Your task to perform on an android device: Go to eBay Image 0: 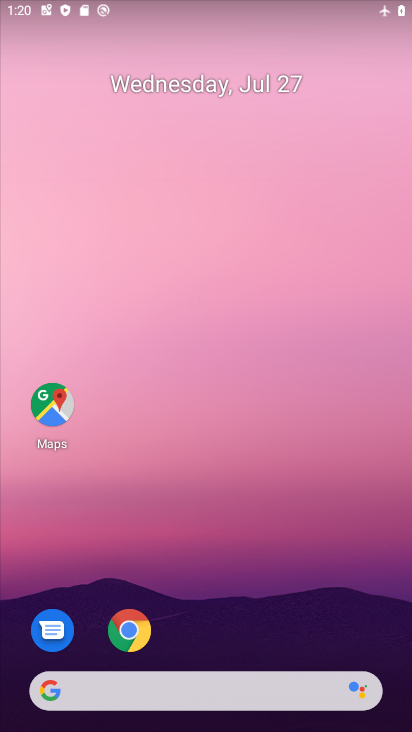
Step 0: drag from (397, 711) to (375, 255)
Your task to perform on an android device: Go to eBay Image 1: 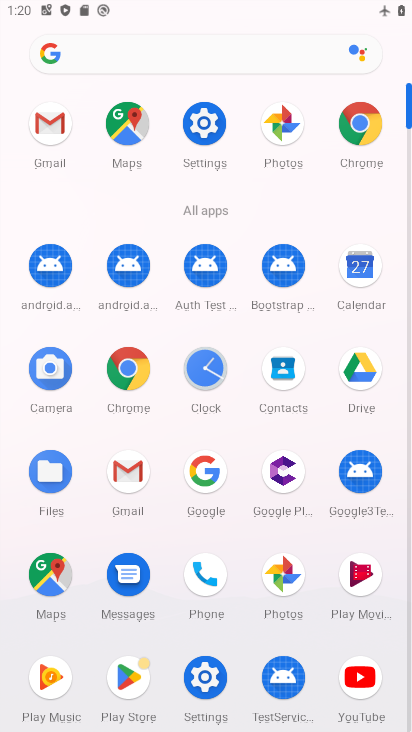
Step 1: click (212, 119)
Your task to perform on an android device: Go to eBay Image 2: 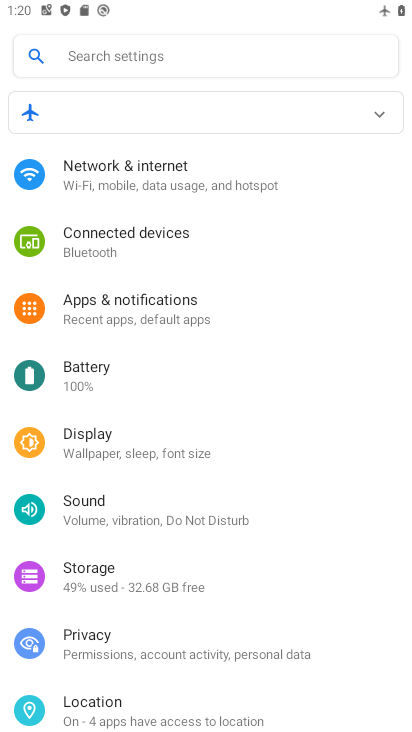
Step 2: click (114, 58)
Your task to perform on an android device: Go to eBay Image 3: 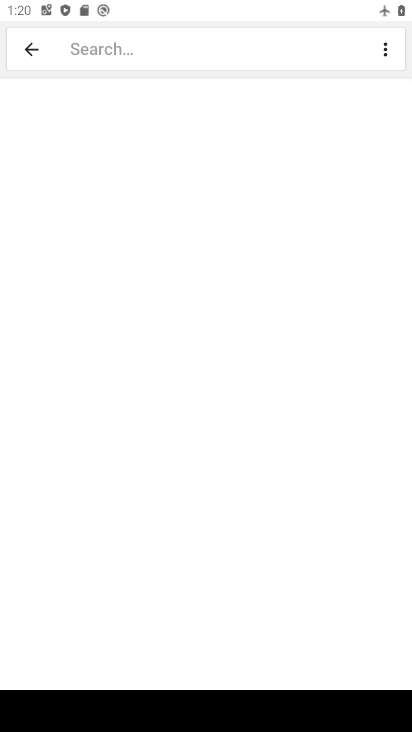
Step 3: type "eBay"
Your task to perform on an android device: Go to eBay Image 4: 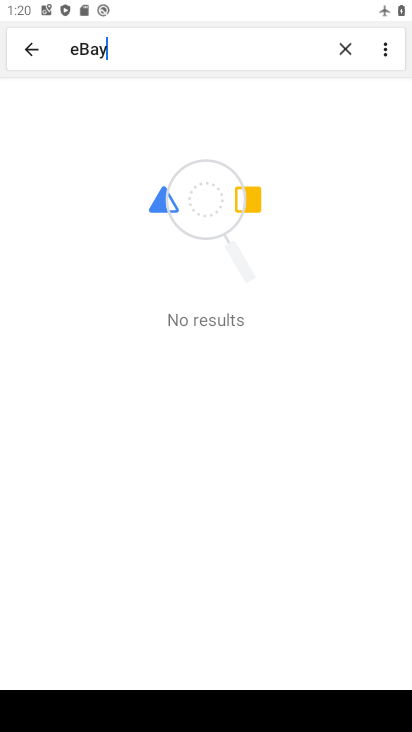
Step 4: task complete